Your task to perform on an android device: Empty the shopping cart on bestbuy. Search for "dell xps" on bestbuy, select the first entry, add it to the cart, then select checkout. Image 0: 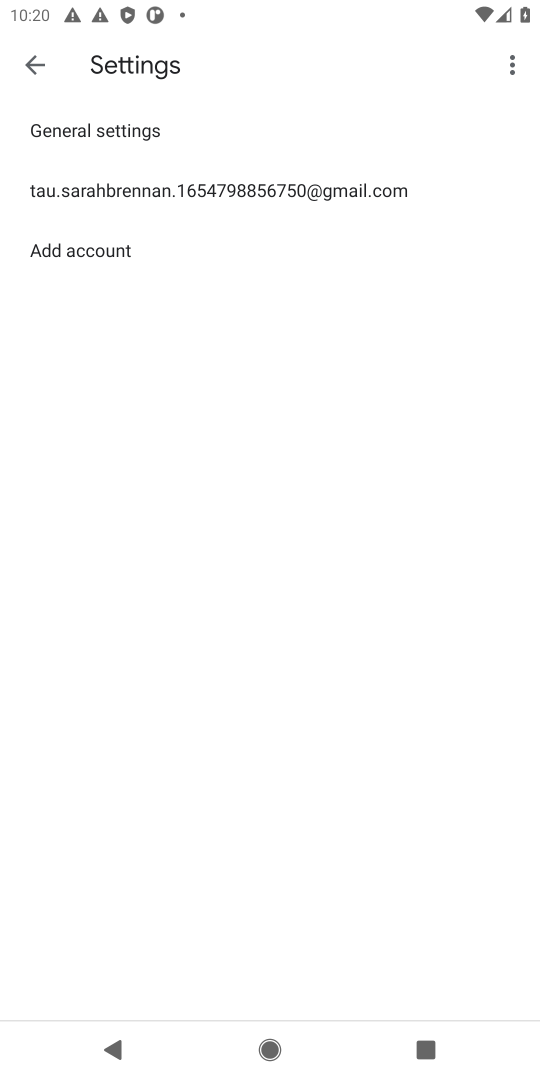
Step 0: press home button
Your task to perform on an android device: Empty the shopping cart on bestbuy. Search for "dell xps" on bestbuy, select the first entry, add it to the cart, then select checkout. Image 1: 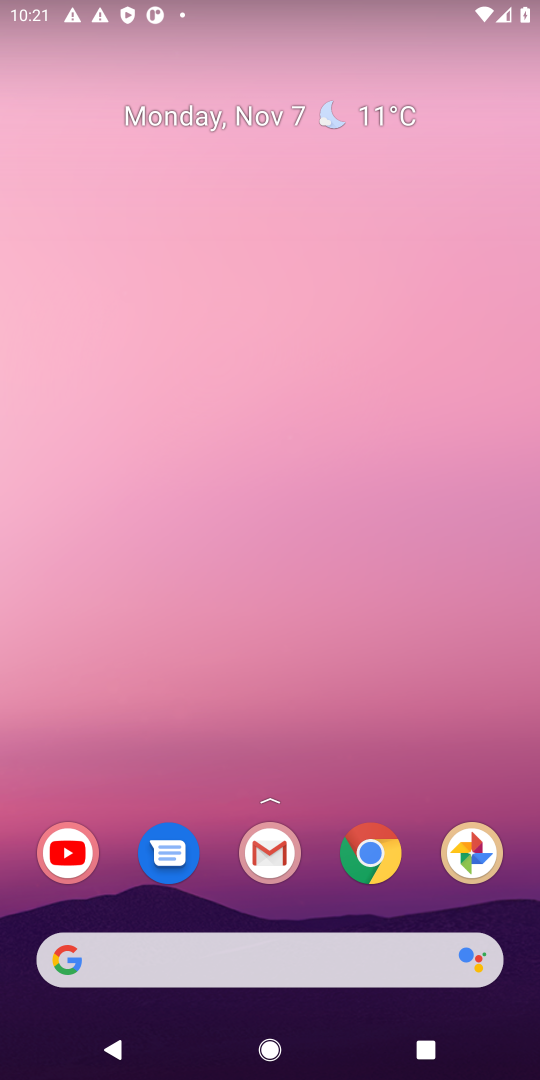
Step 1: click (239, 943)
Your task to perform on an android device: Empty the shopping cart on bestbuy. Search for "dell xps" on bestbuy, select the first entry, add it to the cart, then select checkout. Image 2: 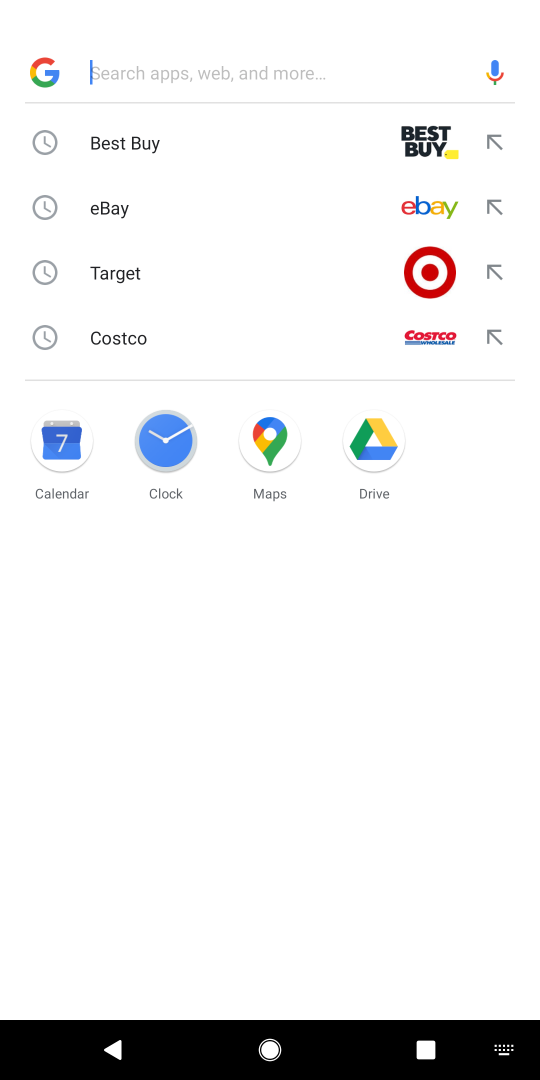
Step 2: click (254, 158)
Your task to perform on an android device: Empty the shopping cart on bestbuy. Search for "dell xps" on bestbuy, select the first entry, add it to the cart, then select checkout. Image 3: 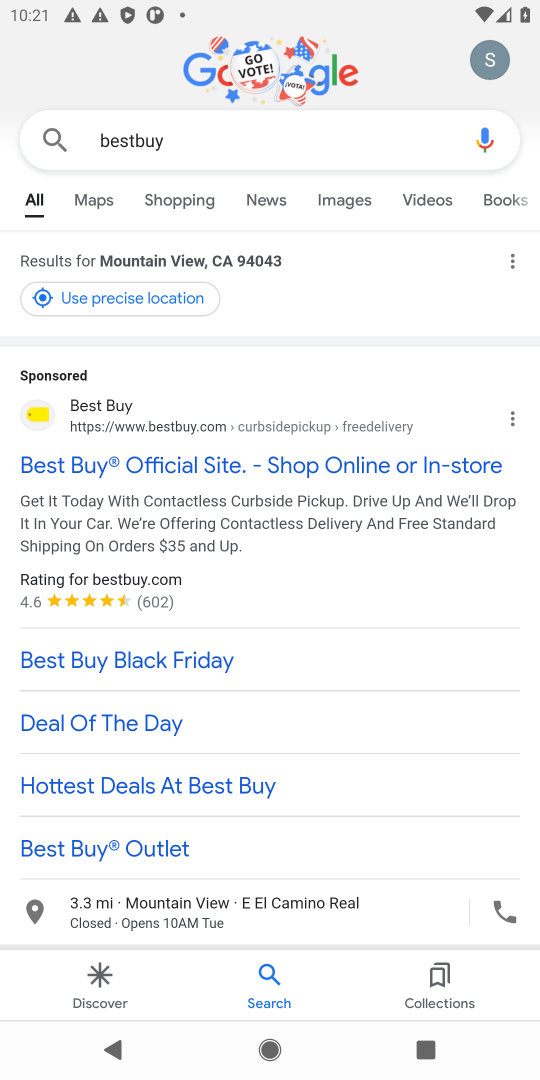
Step 3: click (71, 465)
Your task to perform on an android device: Empty the shopping cart on bestbuy. Search for "dell xps" on bestbuy, select the first entry, add it to the cart, then select checkout. Image 4: 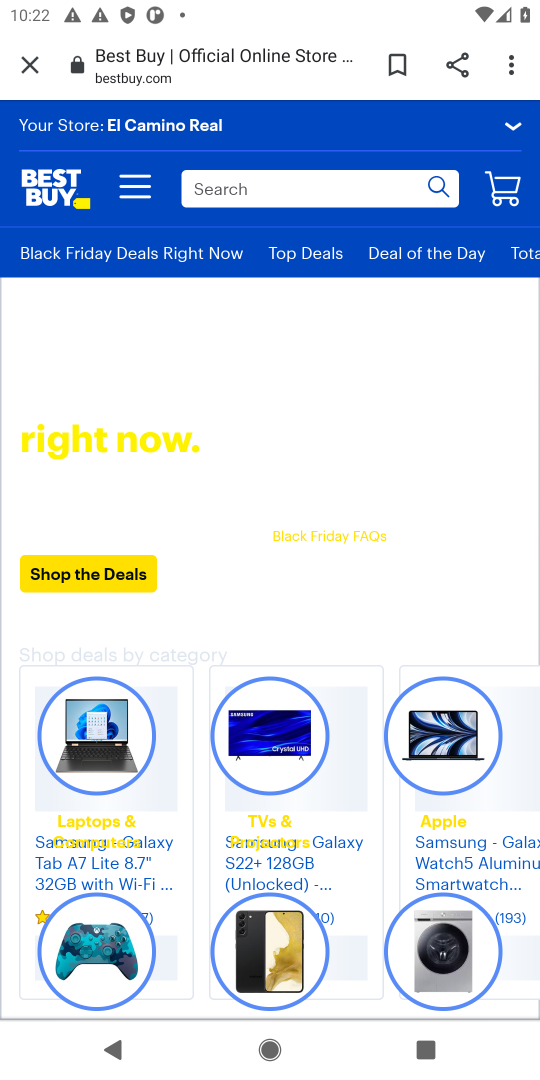
Step 4: task complete